Your task to perform on an android device: Go to notification settings Image 0: 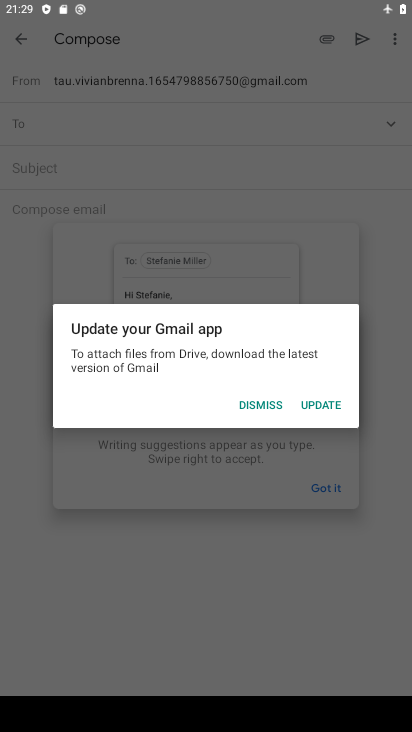
Step 0: press home button
Your task to perform on an android device: Go to notification settings Image 1: 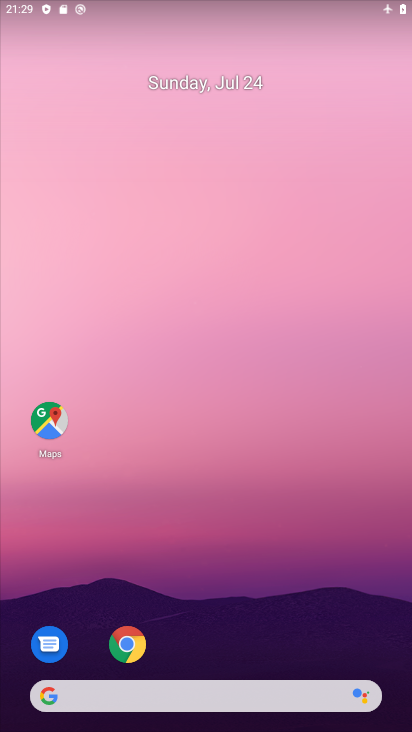
Step 1: drag from (366, 641) to (310, 15)
Your task to perform on an android device: Go to notification settings Image 2: 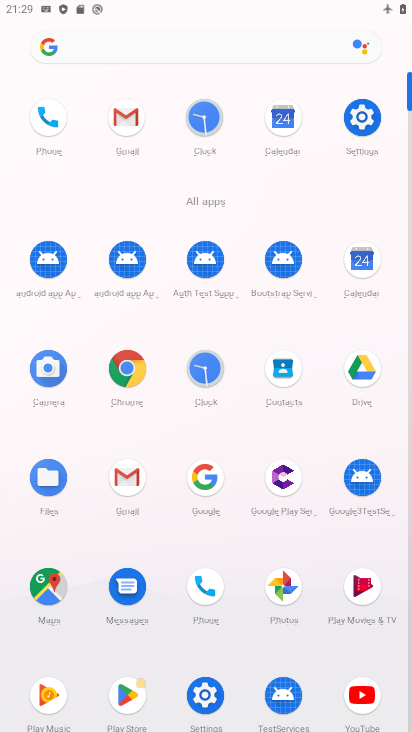
Step 2: click (207, 696)
Your task to perform on an android device: Go to notification settings Image 3: 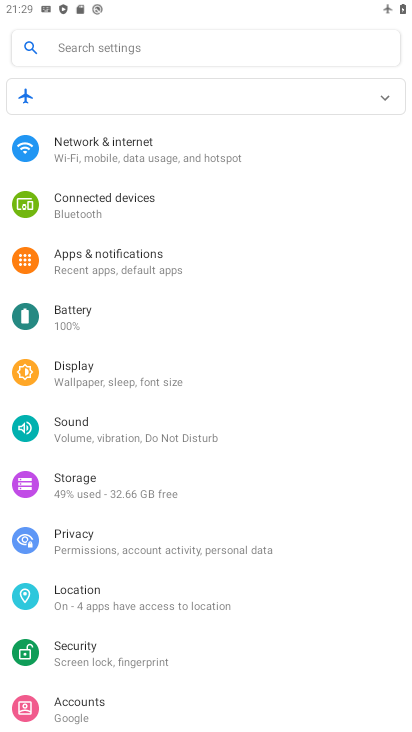
Step 3: click (108, 258)
Your task to perform on an android device: Go to notification settings Image 4: 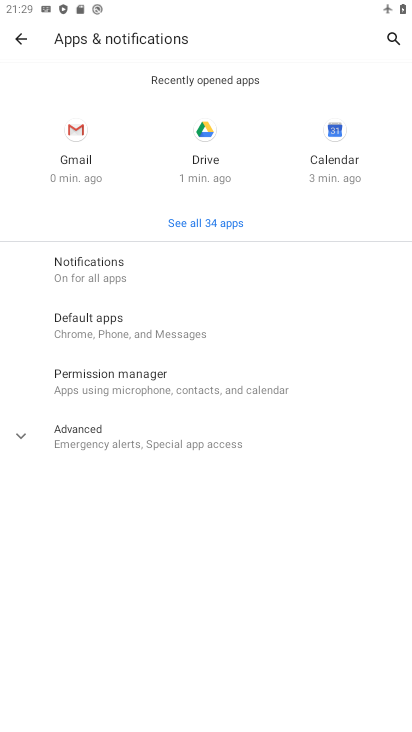
Step 4: click (82, 269)
Your task to perform on an android device: Go to notification settings Image 5: 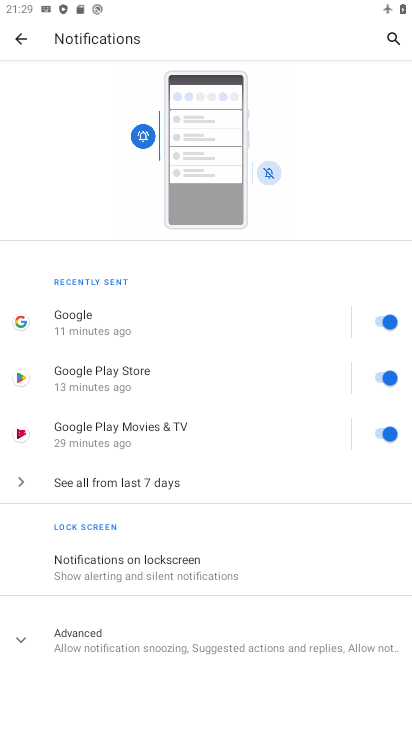
Step 5: click (26, 639)
Your task to perform on an android device: Go to notification settings Image 6: 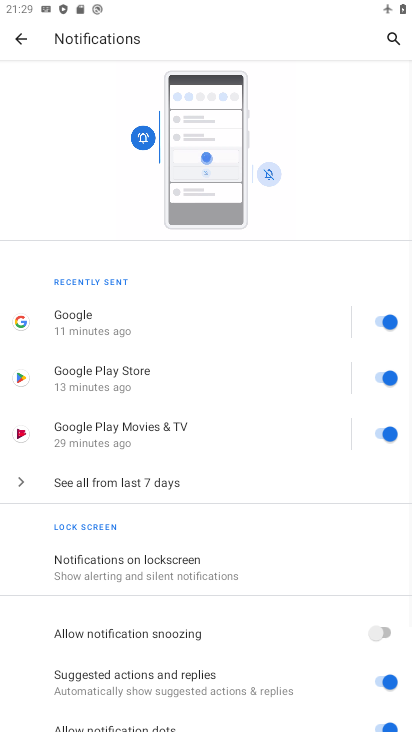
Step 6: task complete